Your task to perform on an android device: turn on the 24-hour format for clock Image 0: 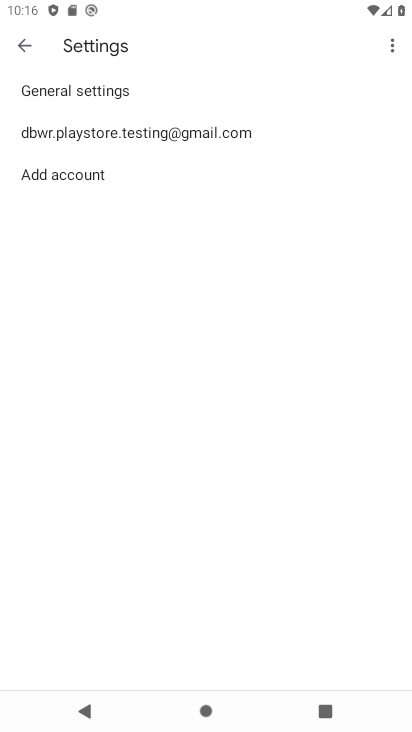
Step 0: press home button
Your task to perform on an android device: turn on the 24-hour format for clock Image 1: 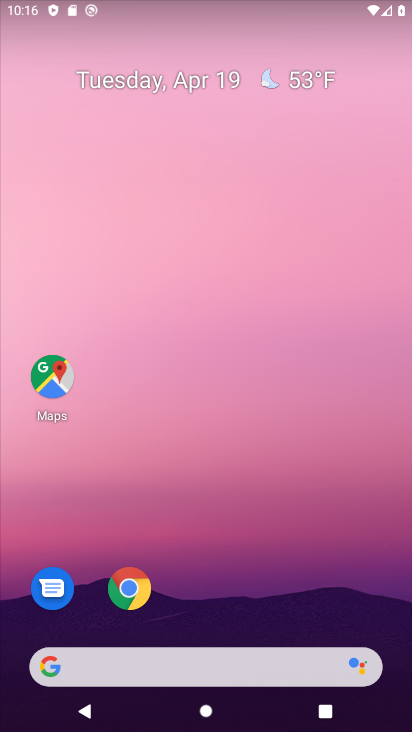
Step 1: drag from (194, 669) to (138, 138)
Your task to perform on an android device: turn on the 24-hour format for clock Image 2: 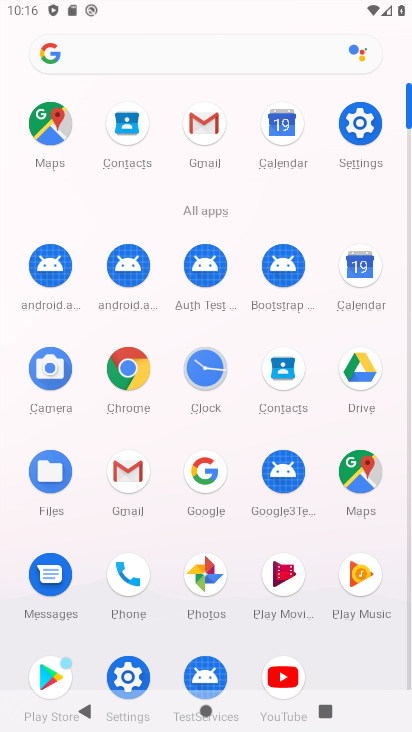
Step 2: click (126, 670)
Your task to perform on an android device: turn on the 24-hour format for clock Image 3: 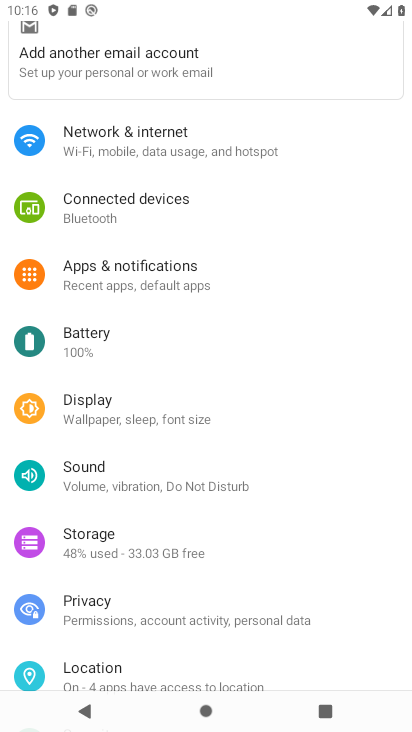
Step 3: drag from (85, 590) to (116, 167)
Your task to perform on an android device: turn on the 24-hour format for clock Image 4: 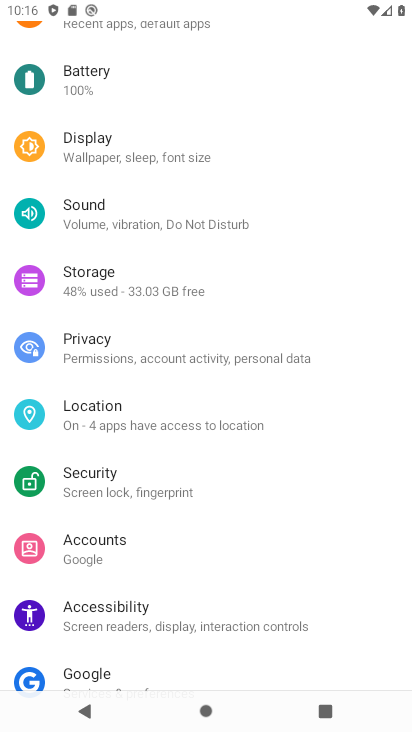
Step 4: drag from (169, 641) to (132, 246)
Your task to perform on an android device: turn on the 24-hour format for clock Image 5: 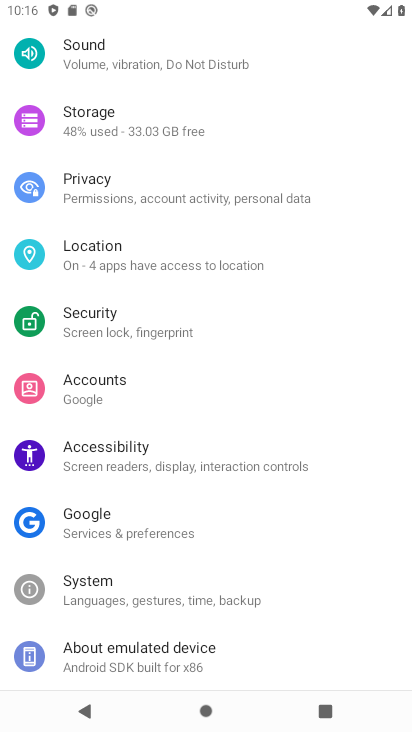
Step 5: click (146, 601)
Your task to perform on an android device: turn on the 24-hour format for clock Image 6: 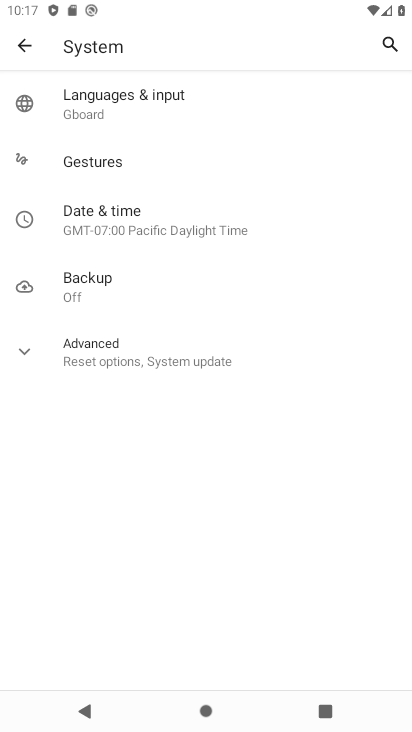
Step 6: click (125, 214)
Your task to perform on an android device: turn on the 24-hour format for clock Image 7: 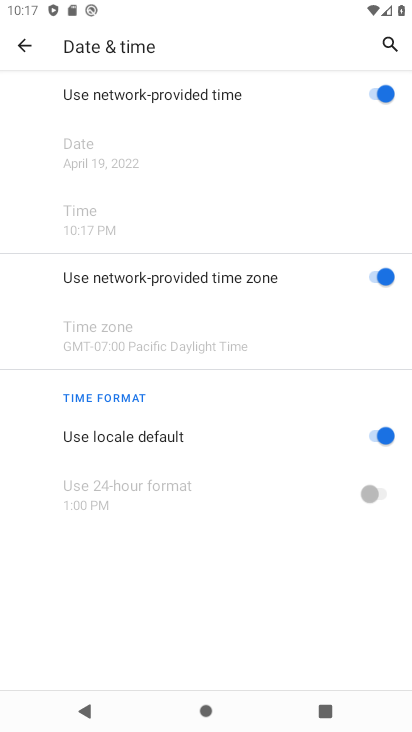
Step 7: click (368, 448)
Your task to perform on an android device: turn on the 24-hour format for clock Image 8: 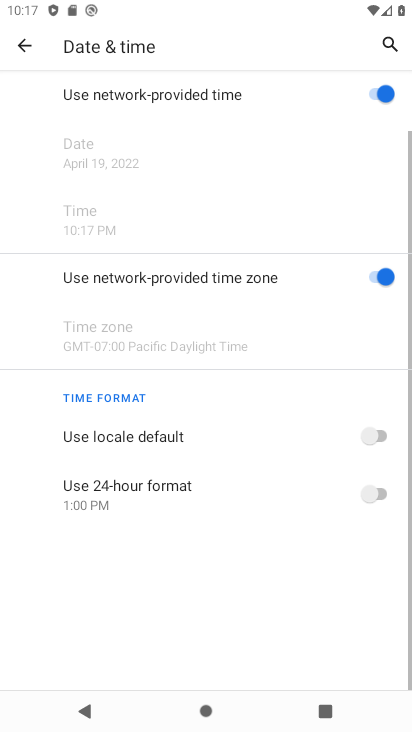
Step 8: click (379, 505)
Your task to perform on an android device: turn on the 24-hour format for clock Image 9: 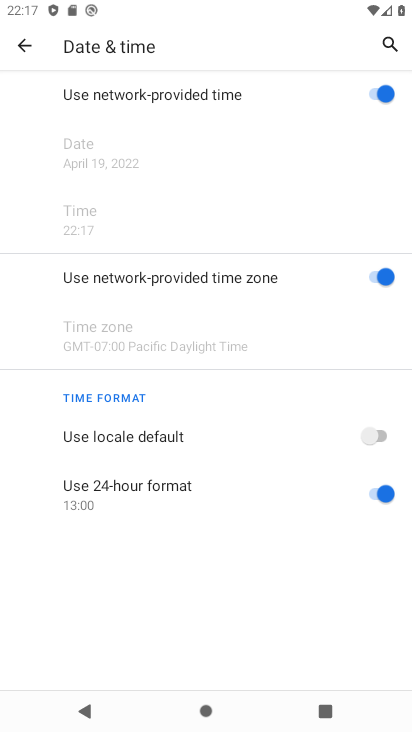
Step 9: task complete